Your task to perform on an android device: check storage Image 0: 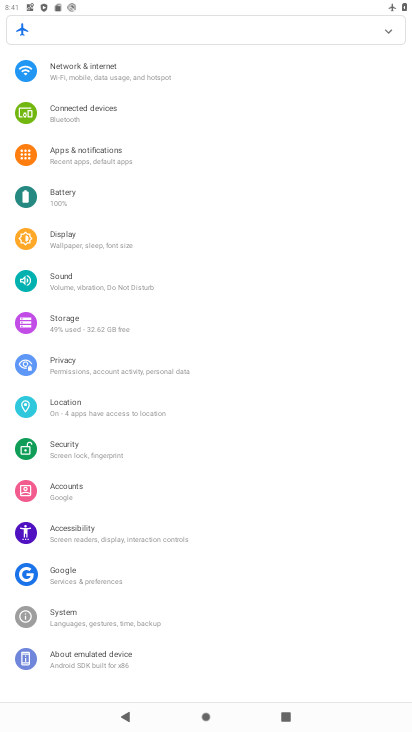
Step 0: click (89, 322)
Your task to perform on an android device: check storage Image 1: 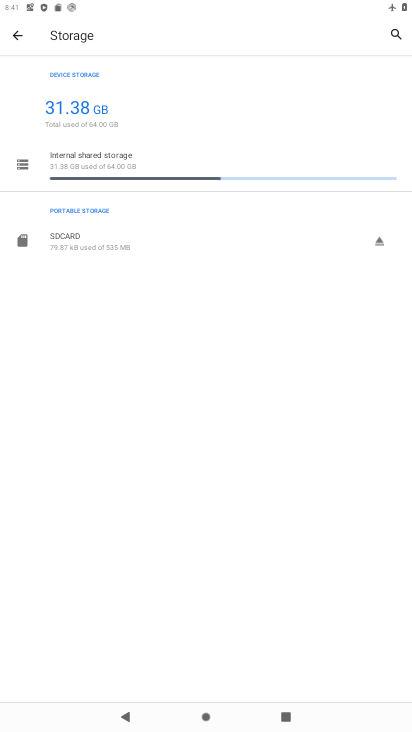
Step 1: task complete